Your task to perform on an android device: change the clock display to digital Image 0: 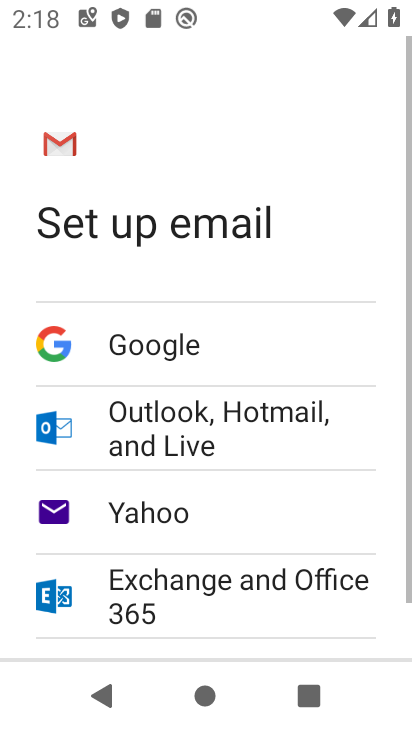
Step 0: press home button
Your task to perform on an android device: change the clock display to digital Image 1: 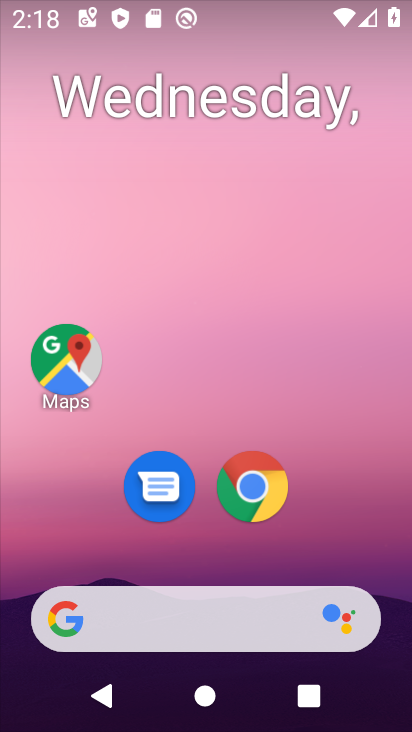
Step 1: drag from (336, 524) to (313, 146)
Your task to perform on an android device: change the clock display to digital Image 2: 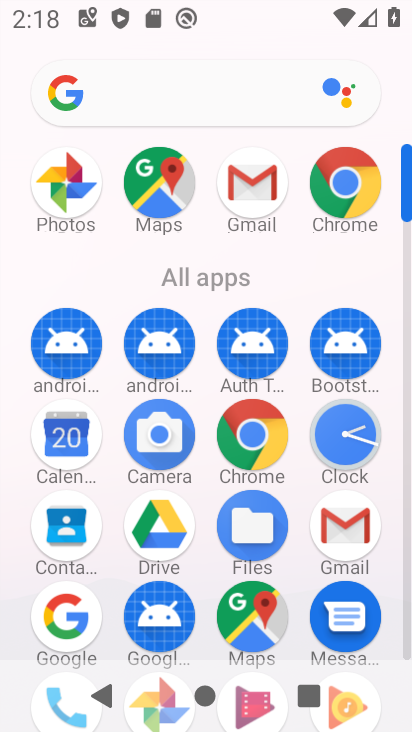
Step 2: click (328, 447)
Your task to perform on an android device: change the clock display to digital Image 3: 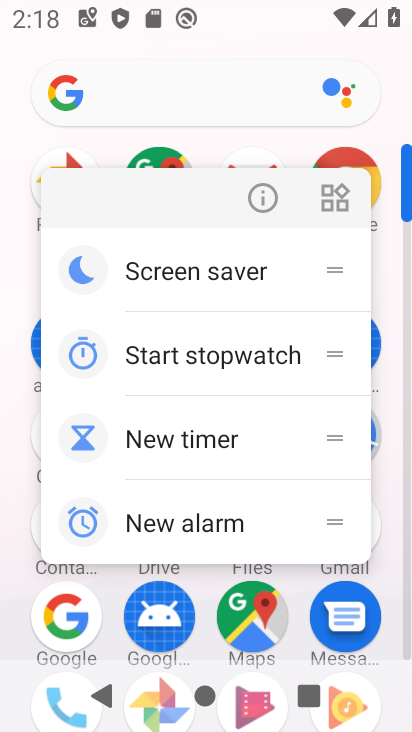
Step 3: click (16, 254)
Your task to perform on an android device: change the clock display to digital Image 4: 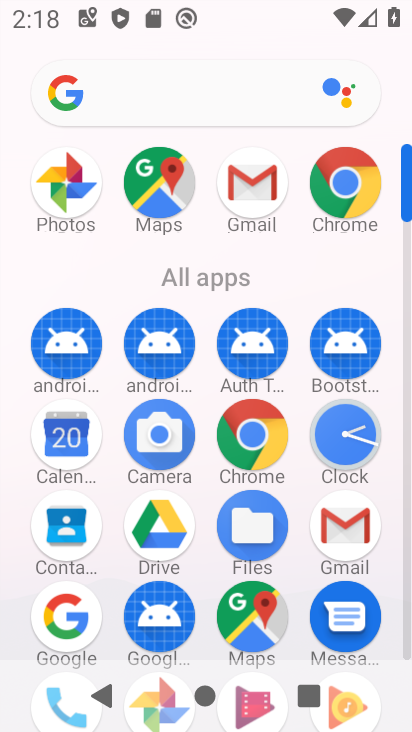
Step 4: click (343, 458)
Your task to perform on an android device: change the clock display to digital Image 5: 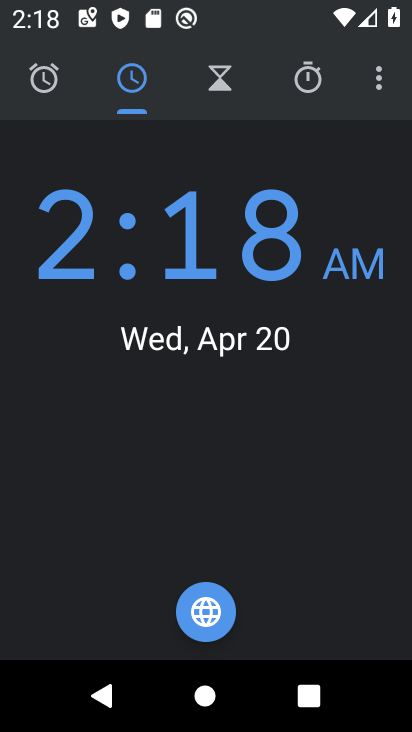
Step 5: click (373, 80)
Your task to perform on an android device: change the clock display to digital Image 6: 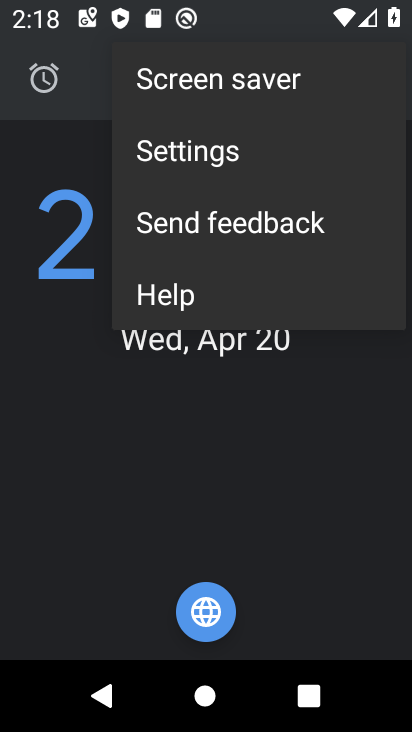
Step 6: click (254, 151)
Your task to perform on an android device: change the clock display to digital Image 7: 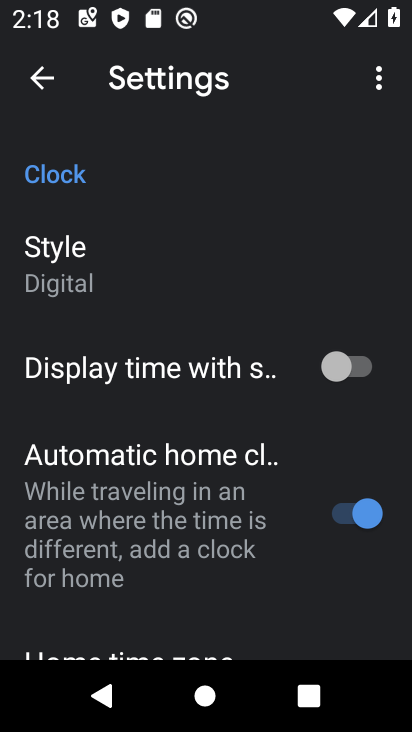
Step 7: task complete